Your task to perform on an android device: turn off picture-in-picture Image 0: 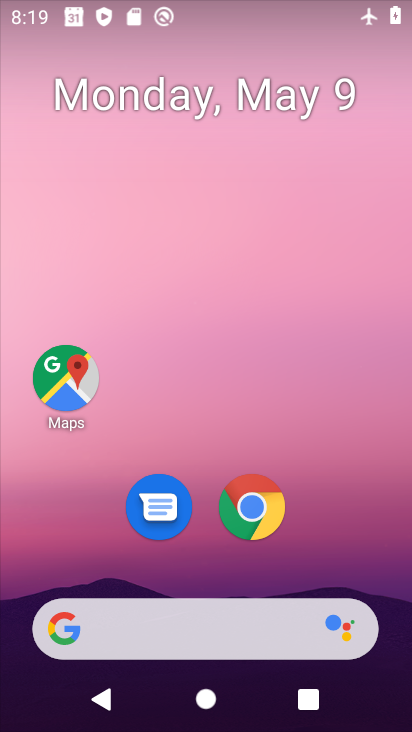
Step 0: drag from (193, 577) to (150, 8)
Your task to perform on an android device: turn off picture-in-picture Image 1: 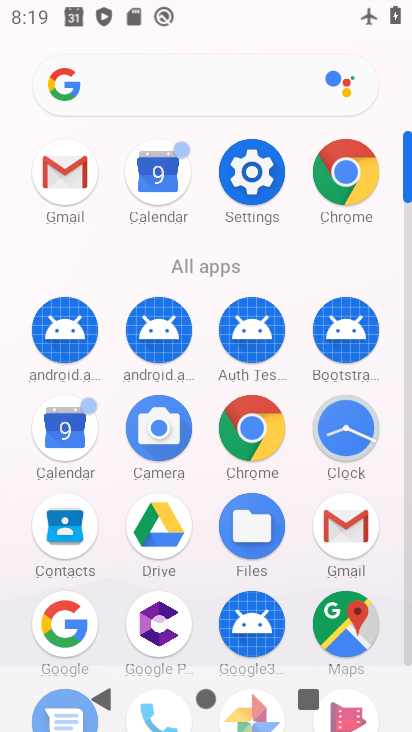
Step 1: click (229, 203)
Your task to perform on an android device: turn off picture-in-picture Image 2: 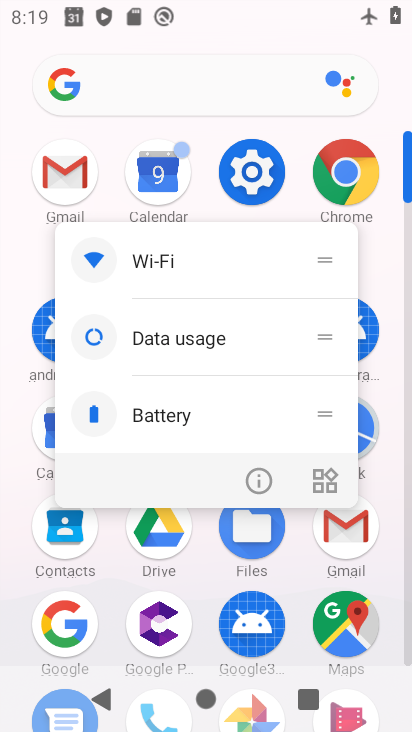
Step 2: click (243, 179)
Your task to perform on an android device: turn off picture-in-picture Image 3: 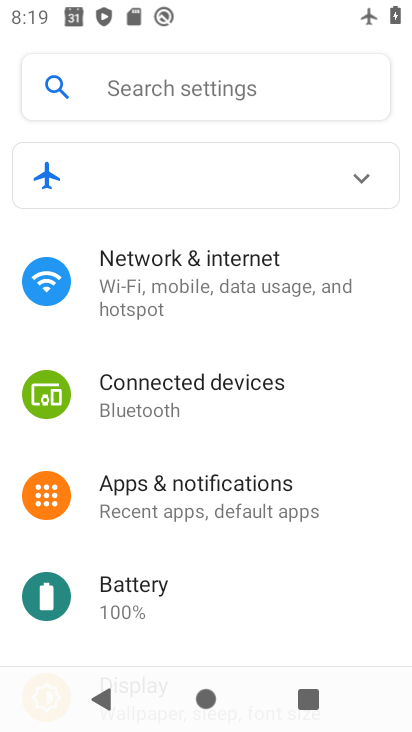
Step 3: drag from (208, 537) to (187, 143)
Your task to perform on an android device: turn off picture-in-picture Image 4: 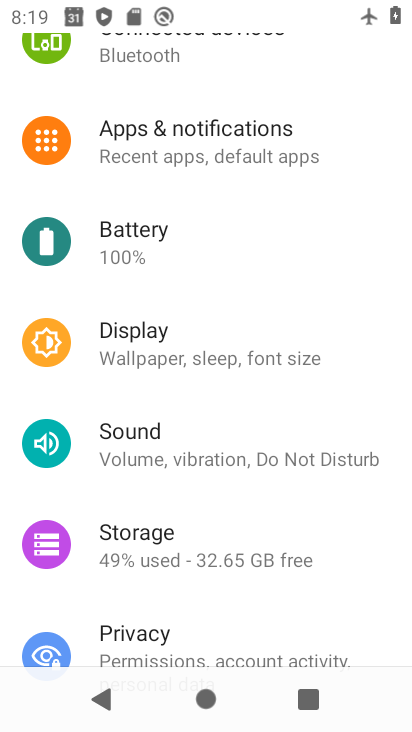
Step 4: drag from (239, 491) to (216, 17)
Your task to perform on an android device: turn off picture-in-picture Image 5: 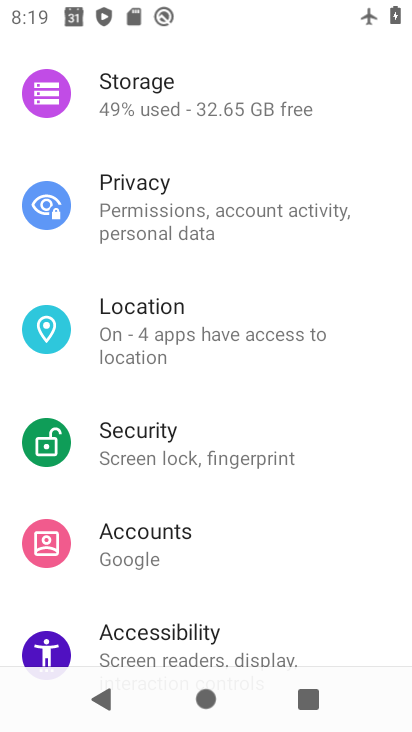
Step 5: drag from (235, 569) to (211, 83)
Your task to perform on an android device: turn off picture-in-picture Image 6: 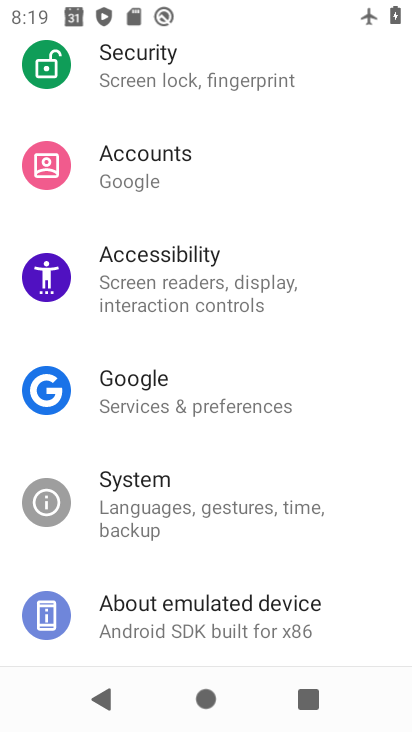
Step 6: drag from (211, 83) to (196, 676)
Your task to perform on an android device: turn off picture-in-picture Image 7: 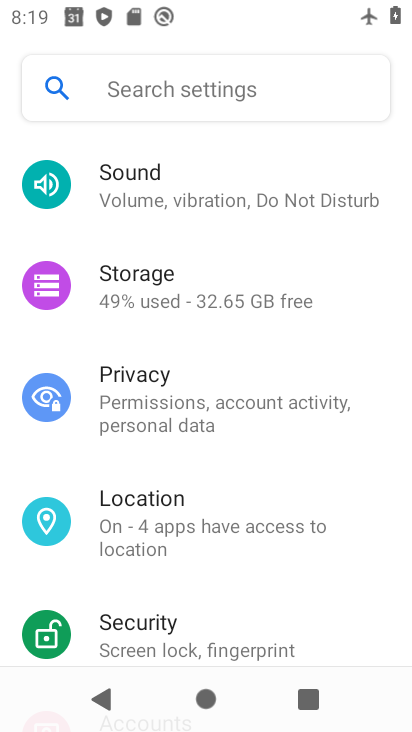
Step 7: drag from (241, 203) to (205, 604)
Your task to perform on an android device: turn off picture-in-picture Image 8: 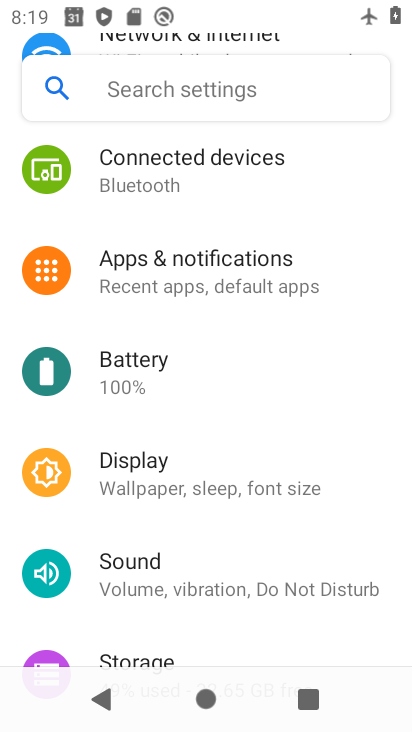
Step 8: click (215, 268)
Your task to perform on an android device: turn off picture-in-picture Image 9: 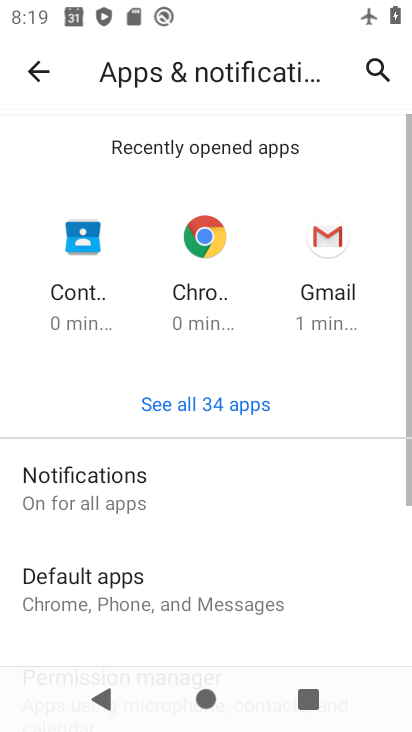
Step 9: drag from (166, 604) to (183, 74)
Your task to perform on an android device: turn off picture-in-picture Image 10: 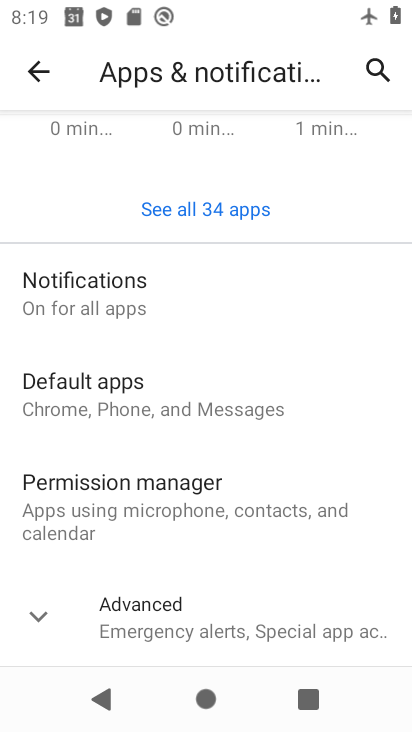
Step 10: click (133, 618)
Your task to perform on an android device: turn off picture-in-picture Image 11: 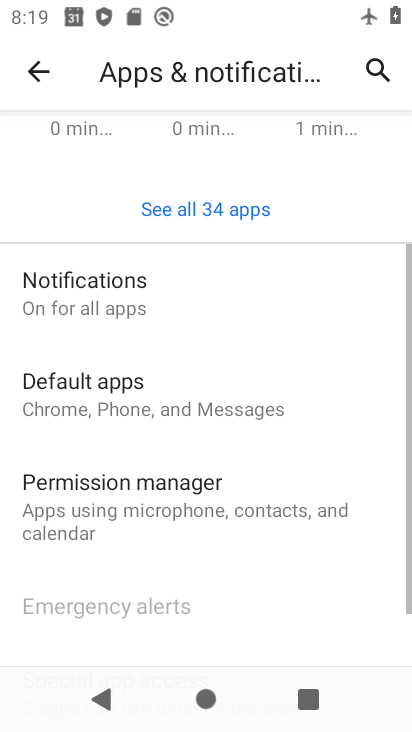
Step 11: drag from (133, 618) to (135, 168)
Your task to perform on an android device: turn off picture-in-picture Image 12: 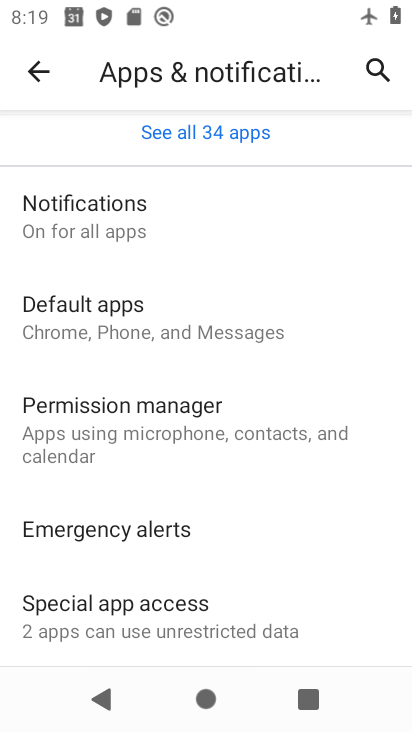
Step 12: click (129, 628)
Your task to perform on an android device: turn off picture-in-picture Image 13: 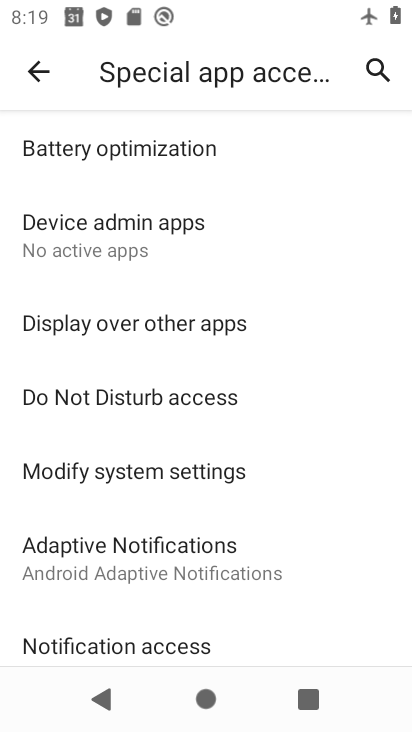
Step 13: drag from (169, 542) to (132, 120)
Your task to perform on an android device: turn off picture-in-picture Image 14: 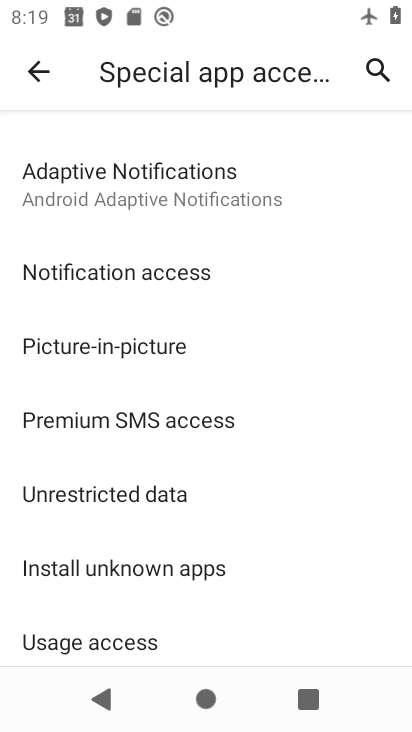
Step 14: click (128, 359)
Your task to perform on an android device: turn off picture-in-picture Image 15: 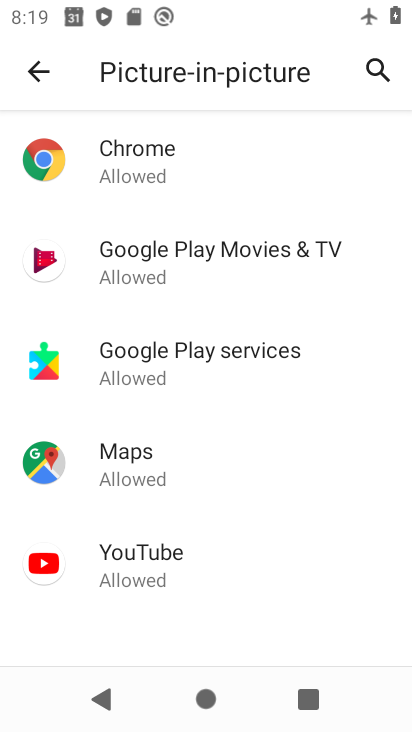
Step 15: task complete